Your task to perform on an android device: Go to wifi settings Image 0: 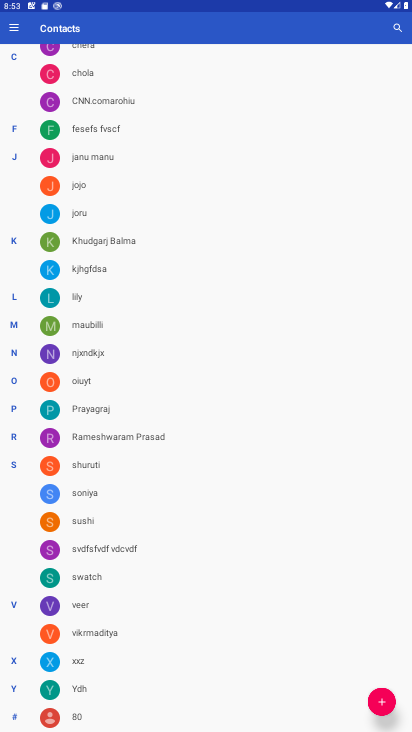
Step 0: press home button
Your task to perform on an android device: Go to wifi settings Image 1: 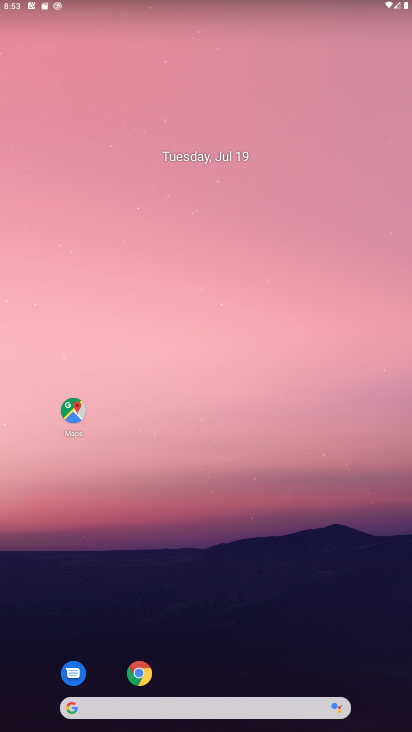
Step 1: drag from (286, 630) to (278, 160)
Your task to perform on an android device: Go to wifi settings Image 2: 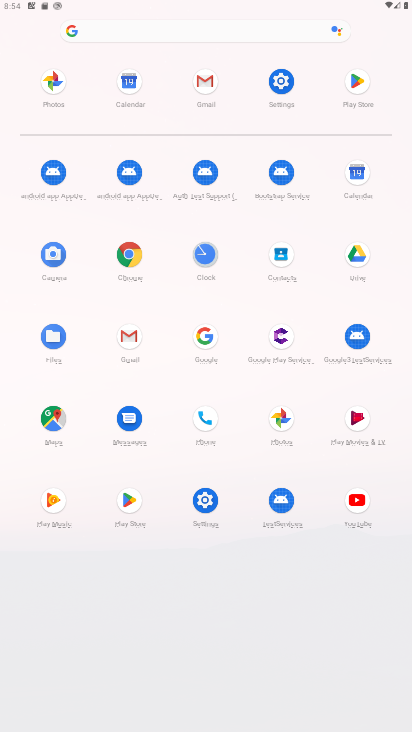
Step 2: click (205, 501)
Your task to perform on an android device: Go to wifi settings Image 3: 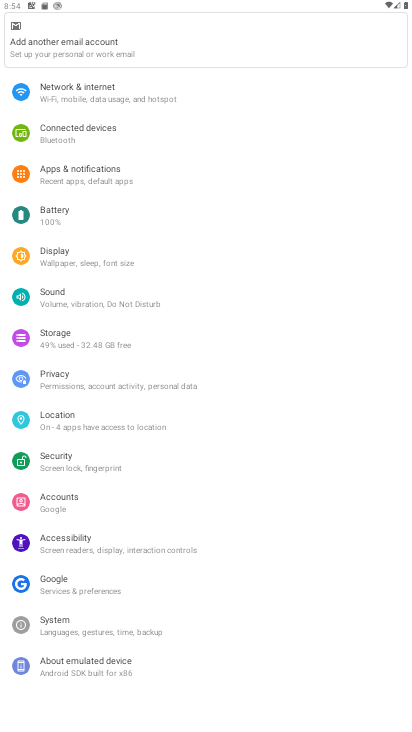
Step 3: click (73, 91)
Your task to perform on an android device: Go to wifi settings Image 4: 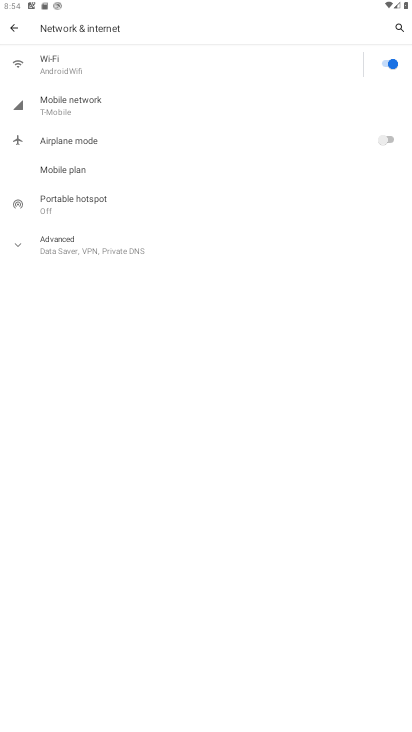
Step 4: click (56, 65)
Your task to perform on an android device: Go to wifi settings Image 5: 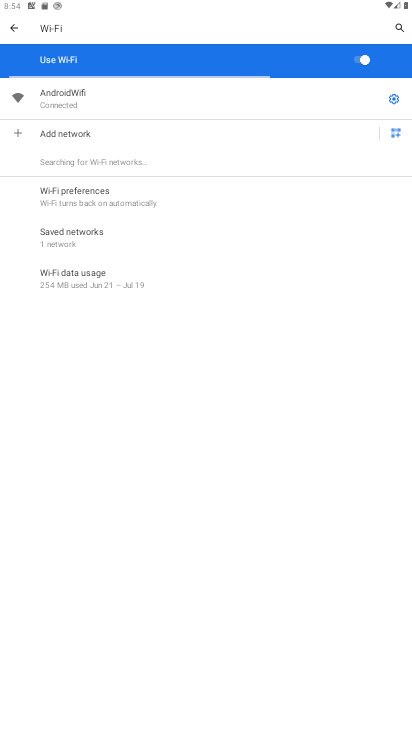
Step 5: click (393, 97)
Your task to perform on an android device: Go to wifi settings Image 6: 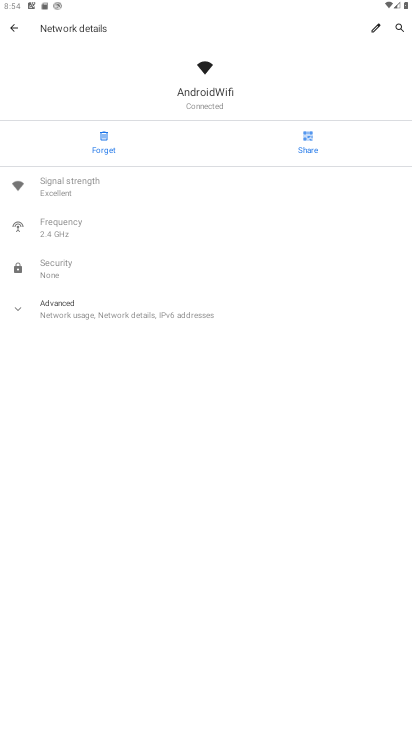
Step 6: task complete